Your task to perform on an android device: change text size in settings app Image 0: 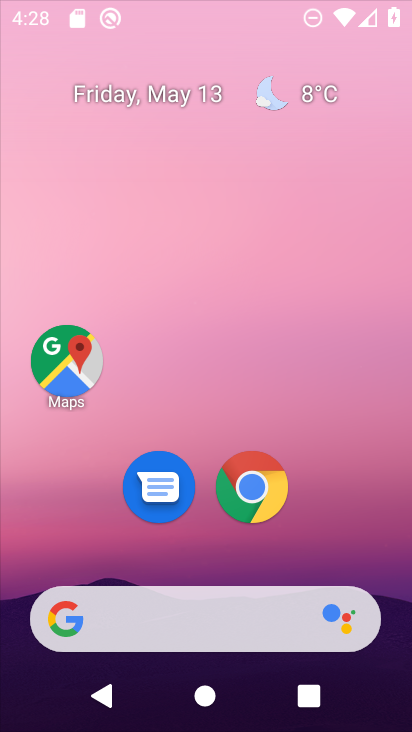
Step 0: drag from (330, 525) to (325, 140)
Your task to perform on an android device: change text size in settings app Image 1: 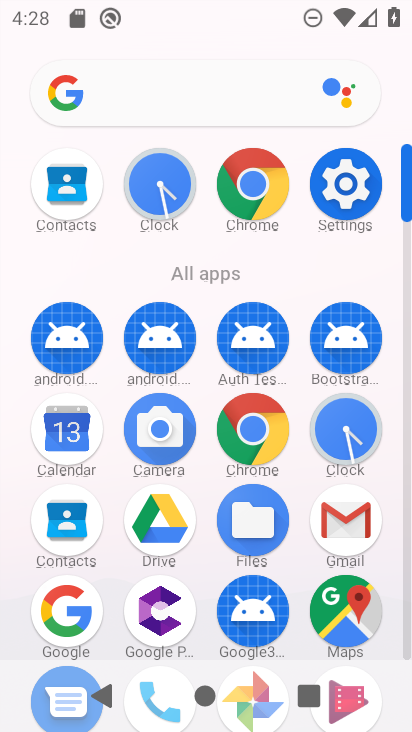
Step 1: click (340, 176)
Your task to perform on an android device: change text size in settings app Image 2: 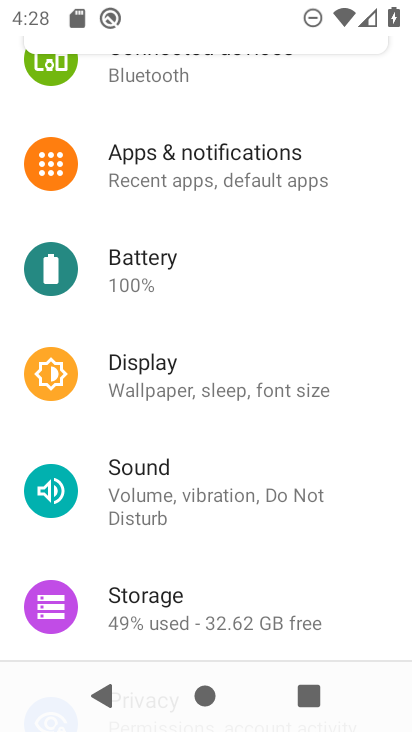
Step 2: click (243, 408)
Your task to perform on an android device: change text size in settings app Image 3: 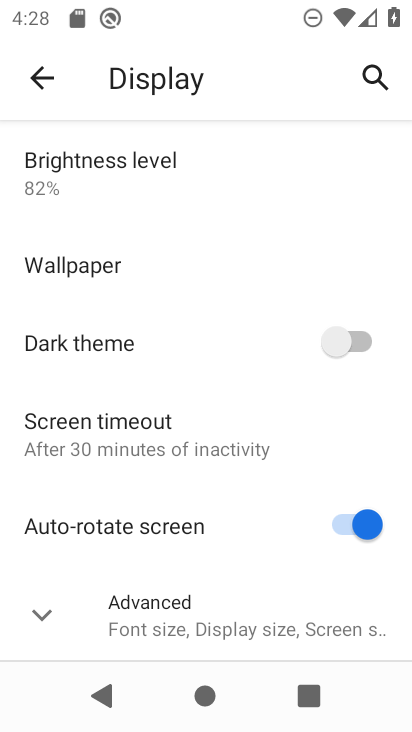
Step 3: click (166, 440)
Your task to perform on an android device: change text size in settings app Image 4: 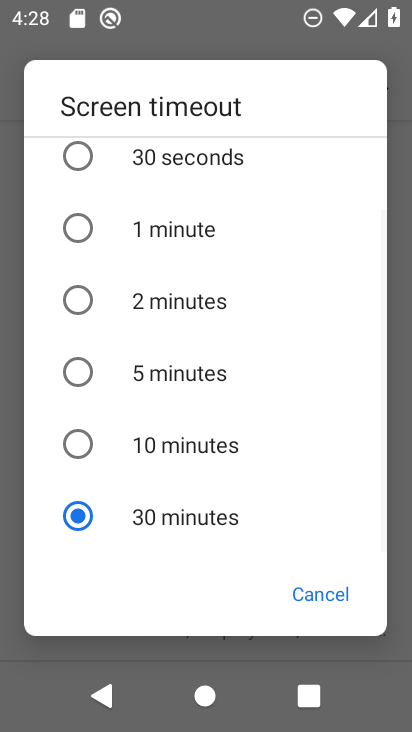
Step 4: click (309, 620)
Your task to perform on an android device: change text size in settings app Image 5: 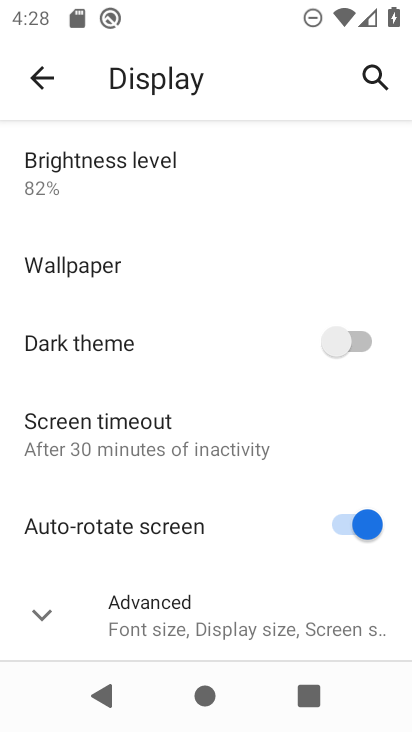
Step 5: click (283, 620)
Your task to perform on an android device: change text size in settings app Image 6: 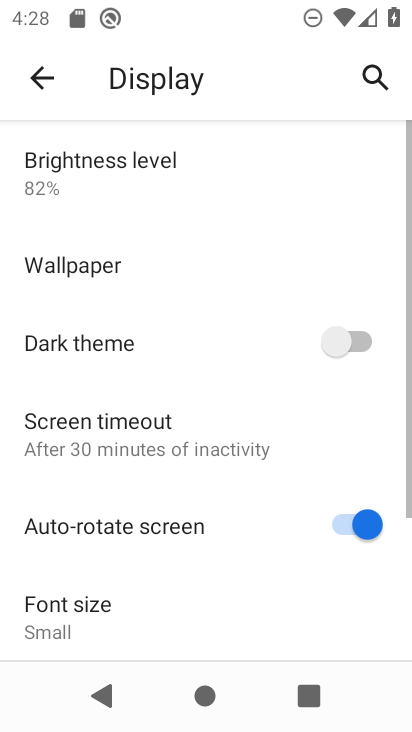
Step 6: click (211, 591)
Your task to perform on an android device: change text size in settings app Image 7: 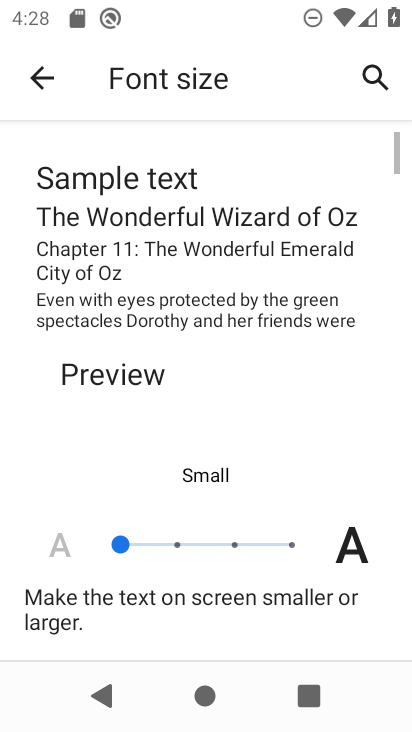
Step 7: click (243, 547)
Your task to perform on an android device: change text size in settings app Image 8: 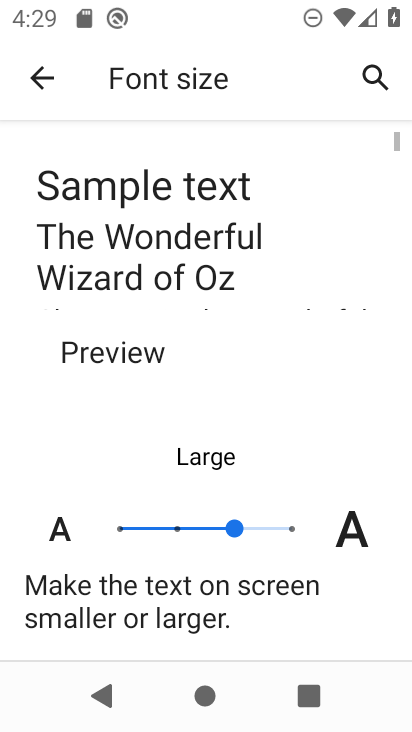
Step 8: task complete